Your task to perform on an android device: Empty the shopping cart on bestbuy. Add "corsair k70" to the cart on bestbuy Image 0: 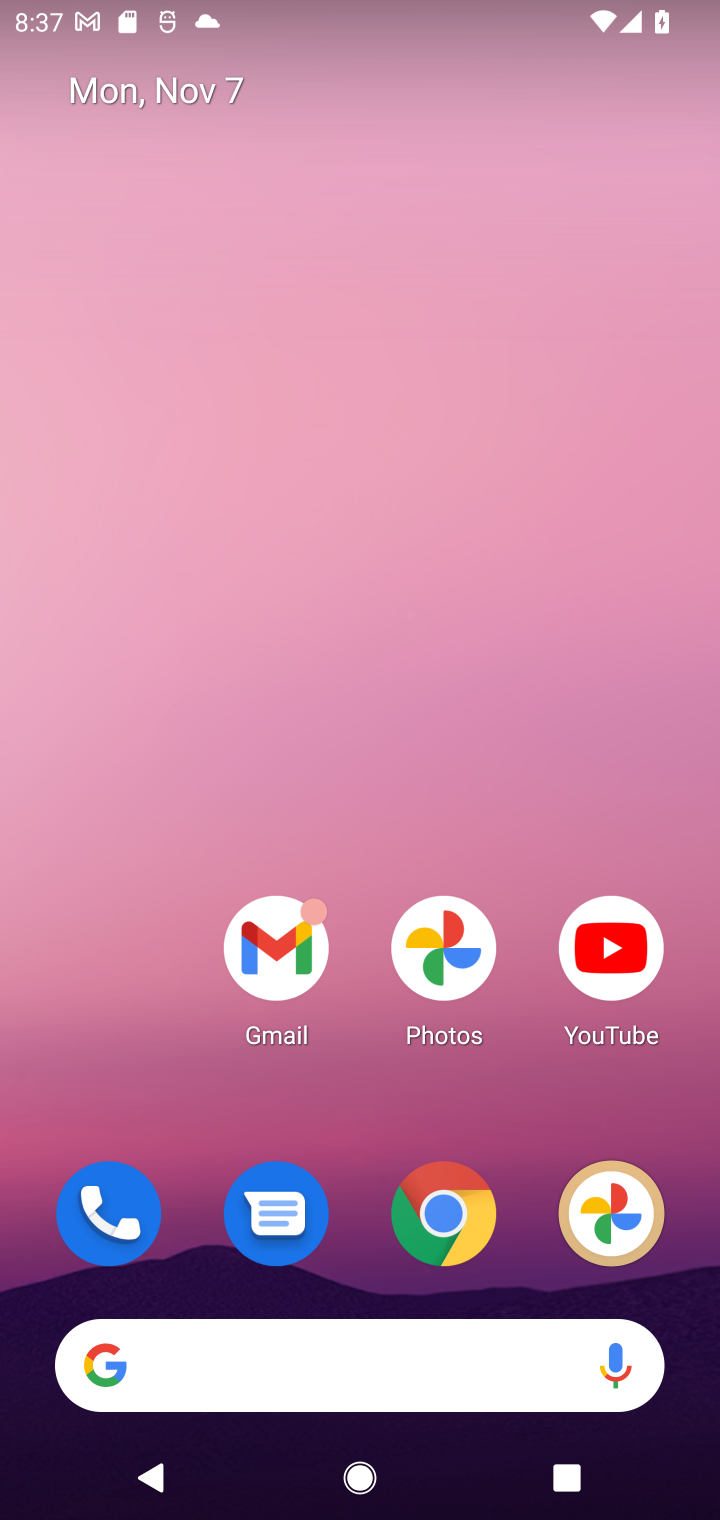
Step 0: click (455, 1223)
Your task to perform on an android device: Empty the shopping cart on bestbuy. Add "corsair k70" to the cart on bestbuy Image 1: 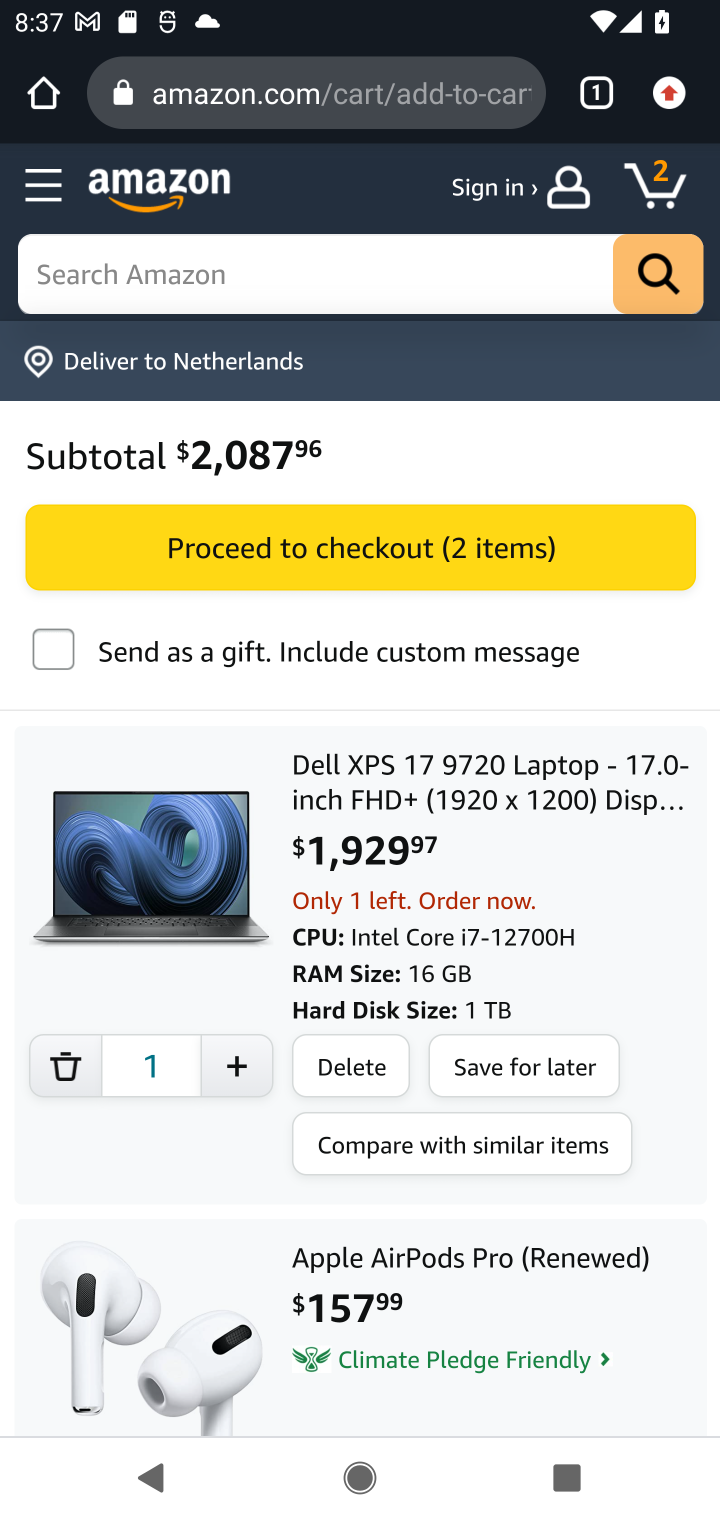
Step 1: click (338, 106)
Your task to perform on an android device: Empty the shopping cart on bestbuy. Add "corsair k70" to the cart on bestbuy Image 2: 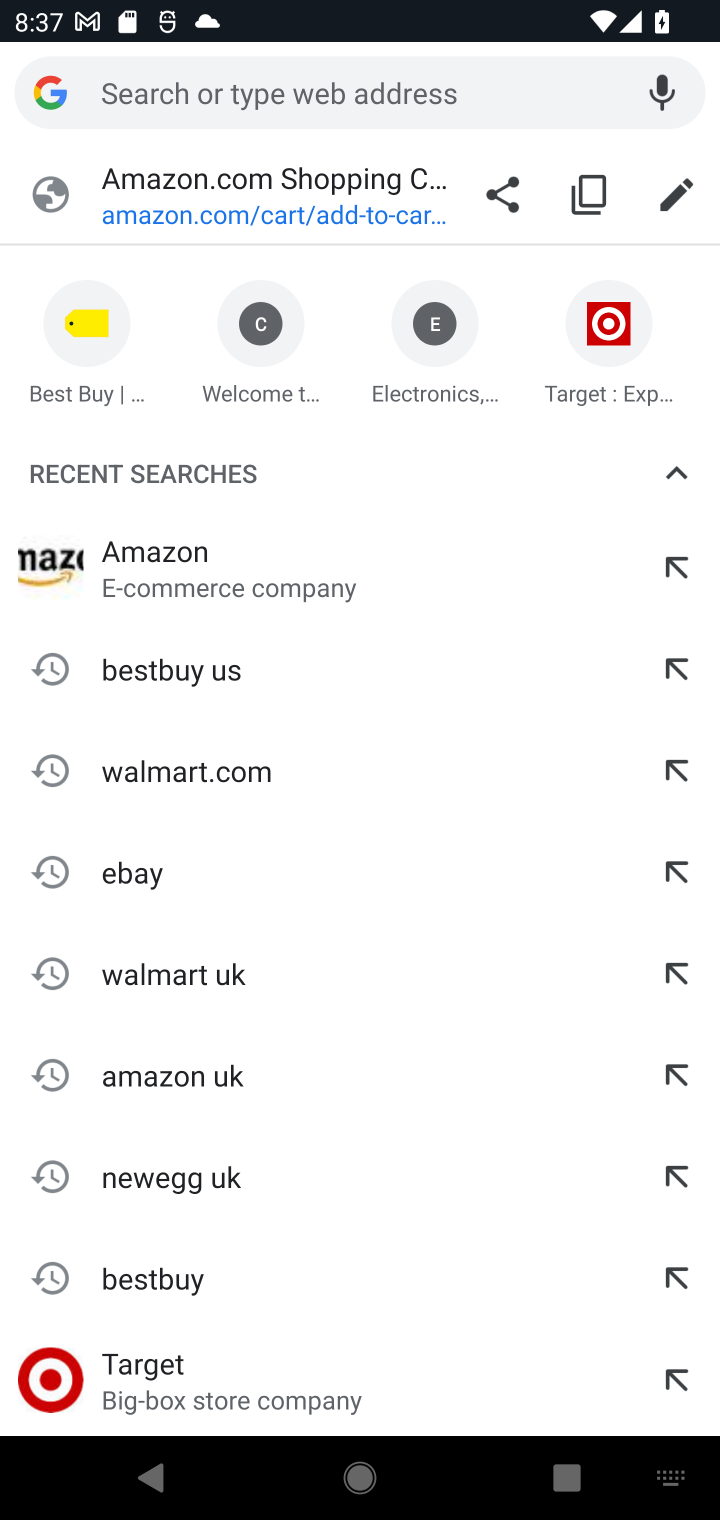
Step 2: type "bestbuy.com"
Your task to perform on an android device: Empty the shopping cart on bestbuy. Add "corsair k70" to the cart on bestbuy Image 3: 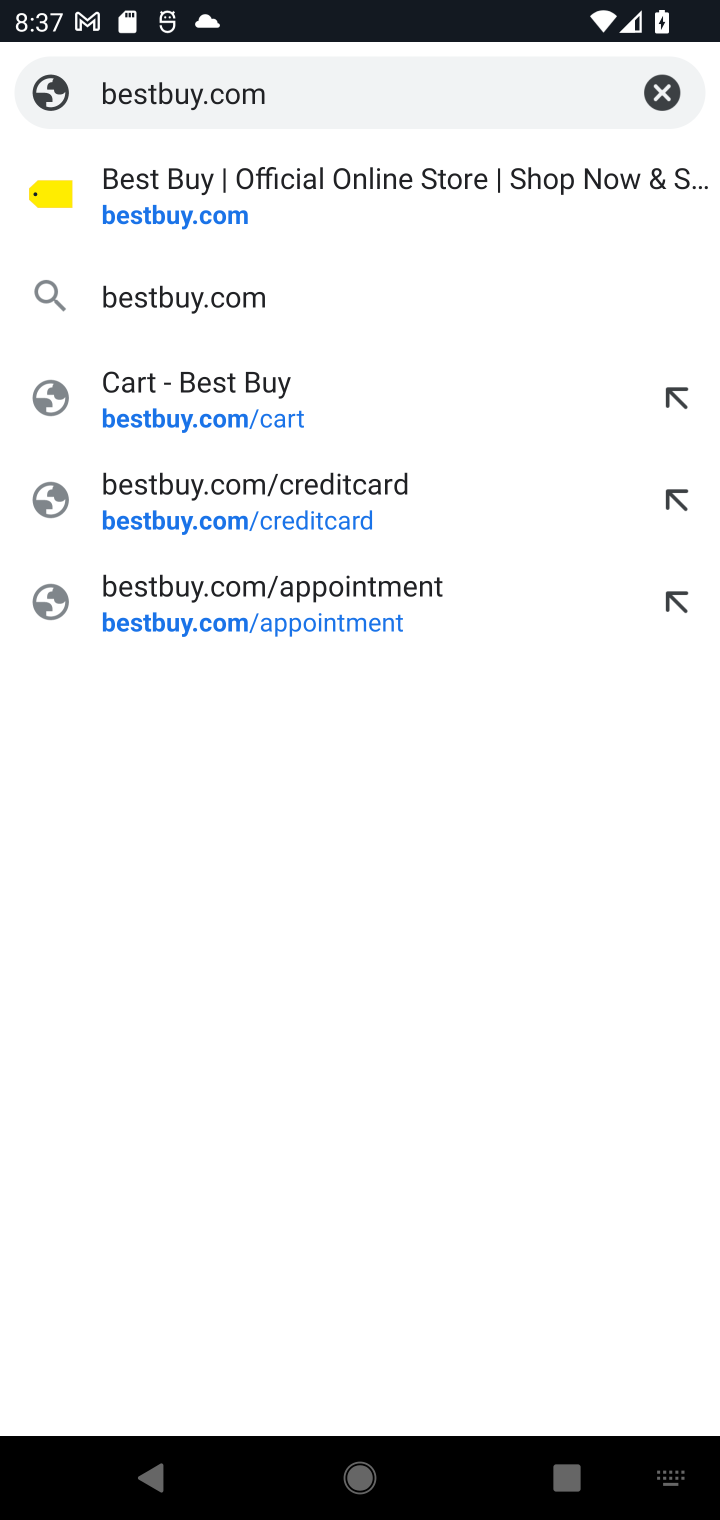
Step 3: click (138, 215)
Your task to perform on an android device: Empty the shopping cart on bestbuy. Add "corsair k70" to the cart on bestbuy Image 4: 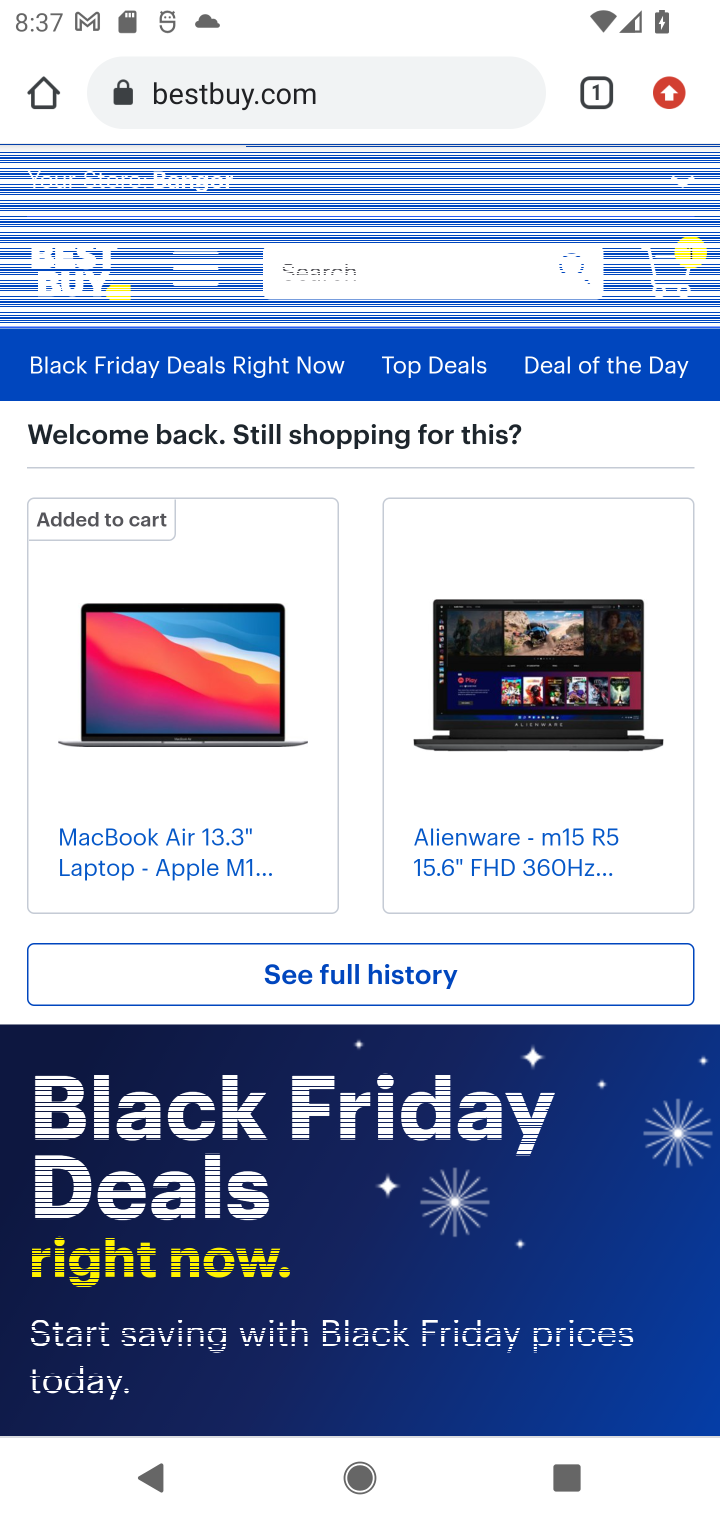
Step 4: click (670, 270)
Your task to perform on an android device: Empty the shopping cart on bestbuy. Add "corsair k70" to the cart on bestbuy Image 5: 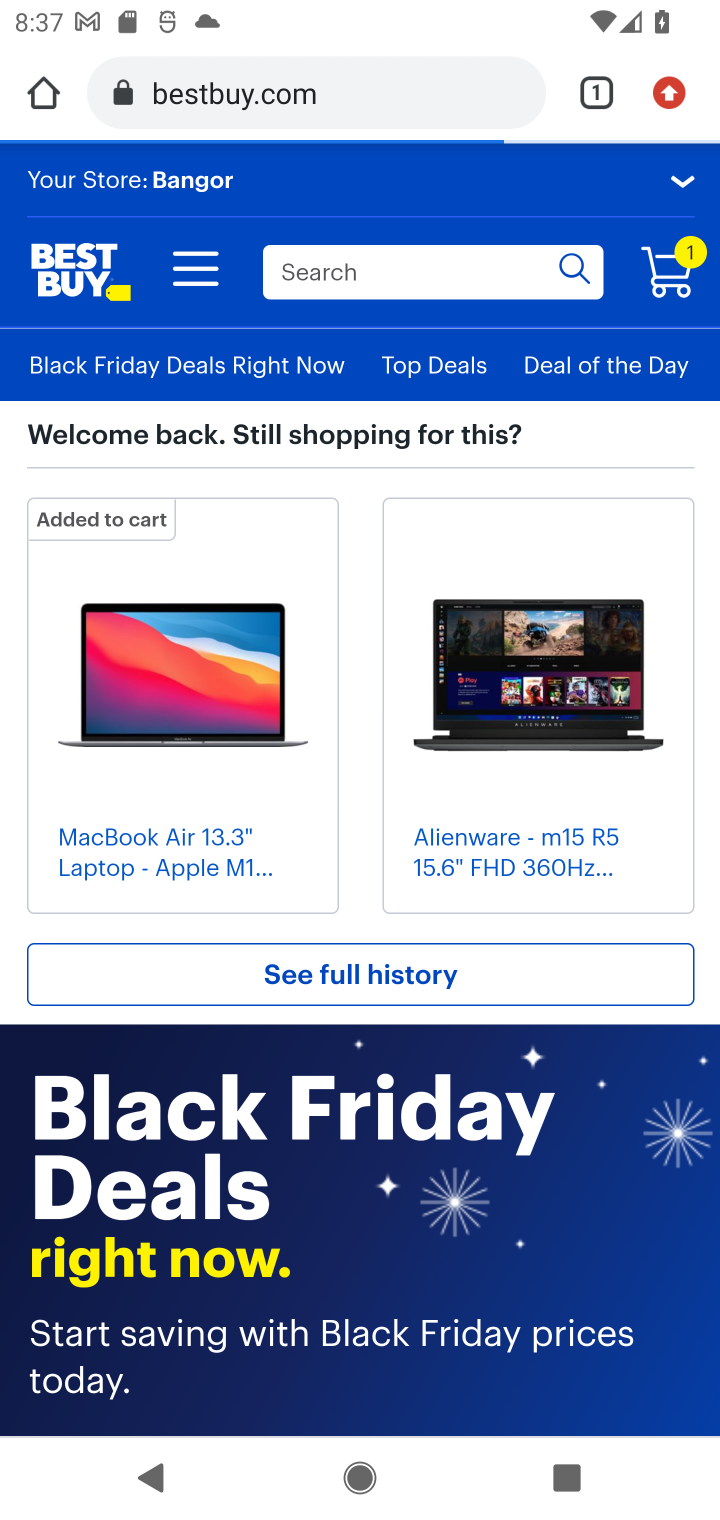
Step 5: click (672, 273)
Your task to perform on an android device: Empty the shopping cart on bestbuy. Add "corsair k70" to the cart on bestbuy Image 6: 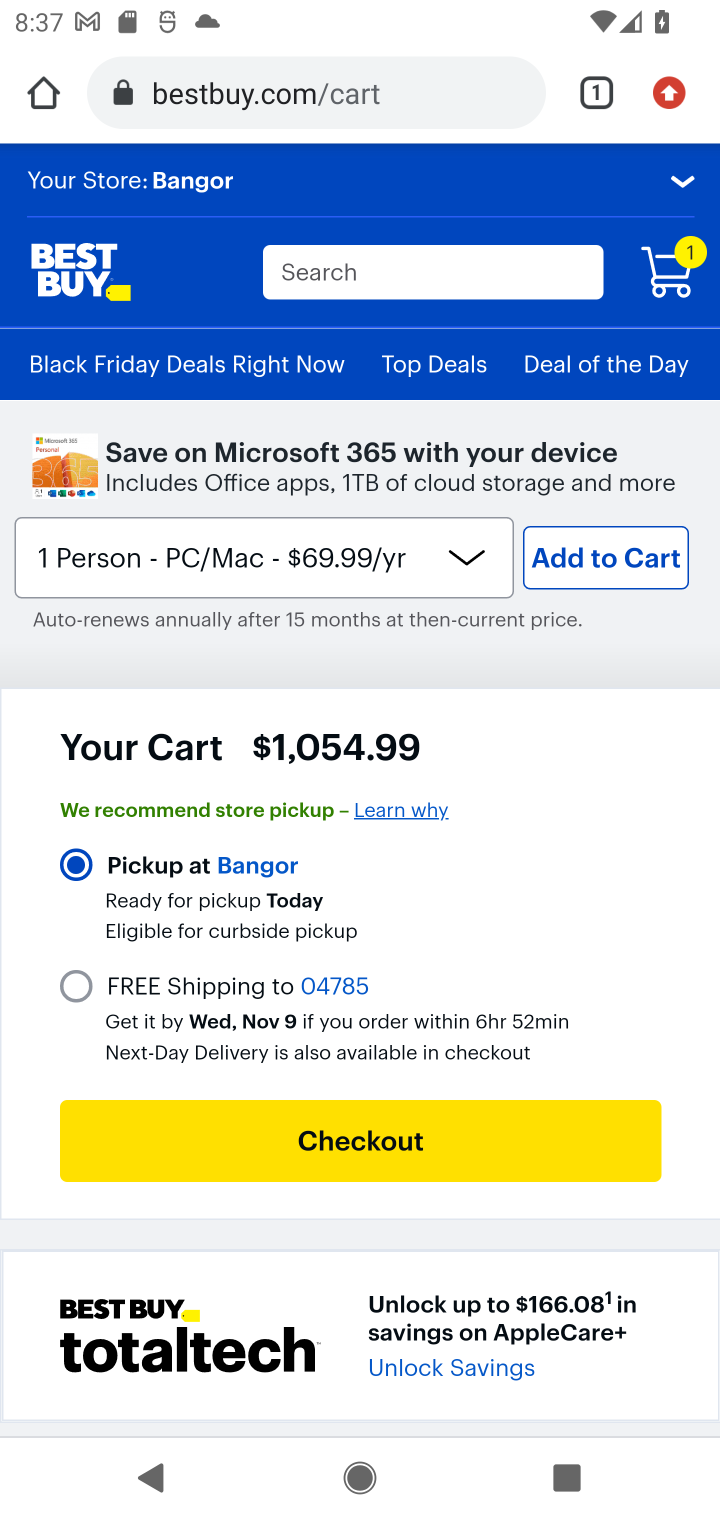
Step 6: drag from (465, 1048) to (468, 514)
Your task to perform on an android device: Empty the shopping cart on bestbuy. Add "corsair k70" to the cart on bestbuy Image 7: 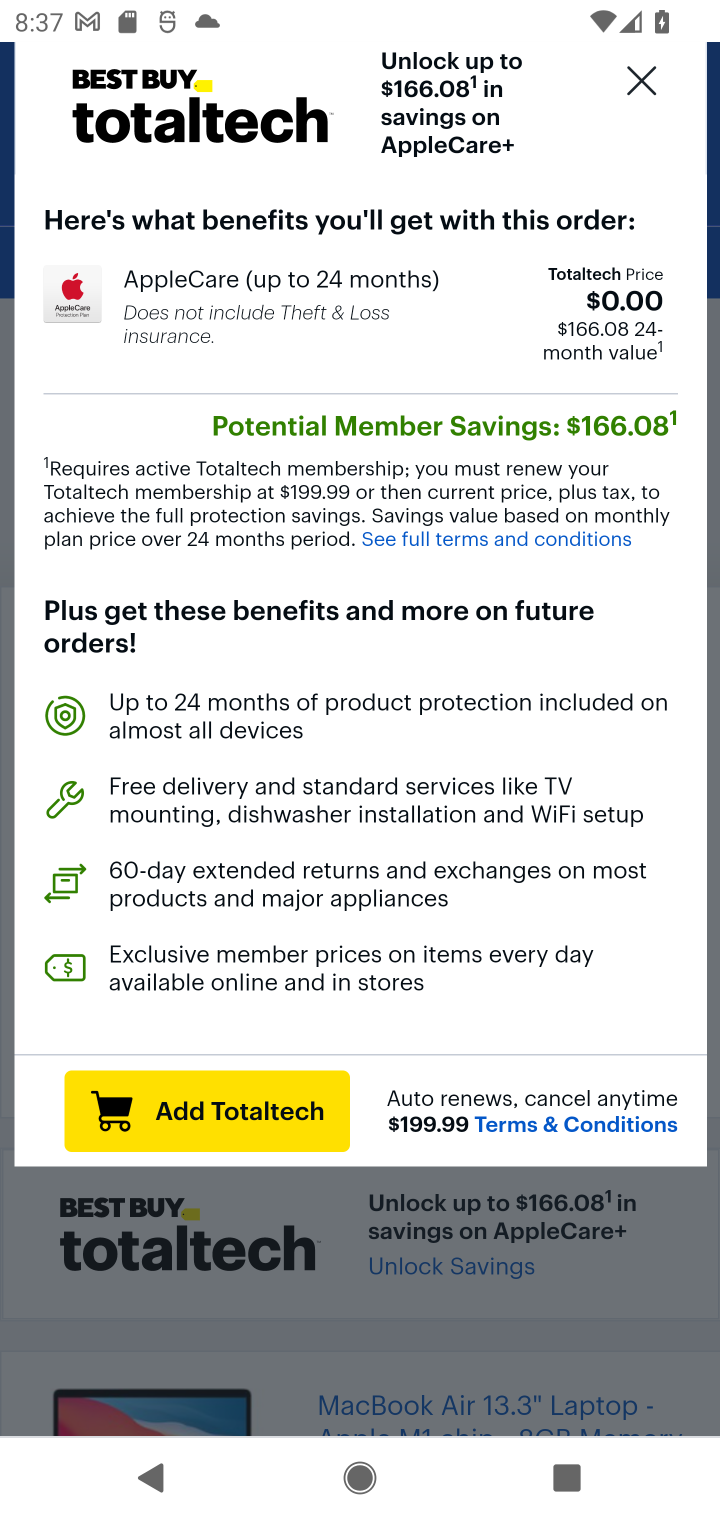
Step 7: click (644, 96)
Your task to perform on an android device: Empty the shopping cart on bestbuy. Add "corsair k70" to the cart on bestbuy Image 8: 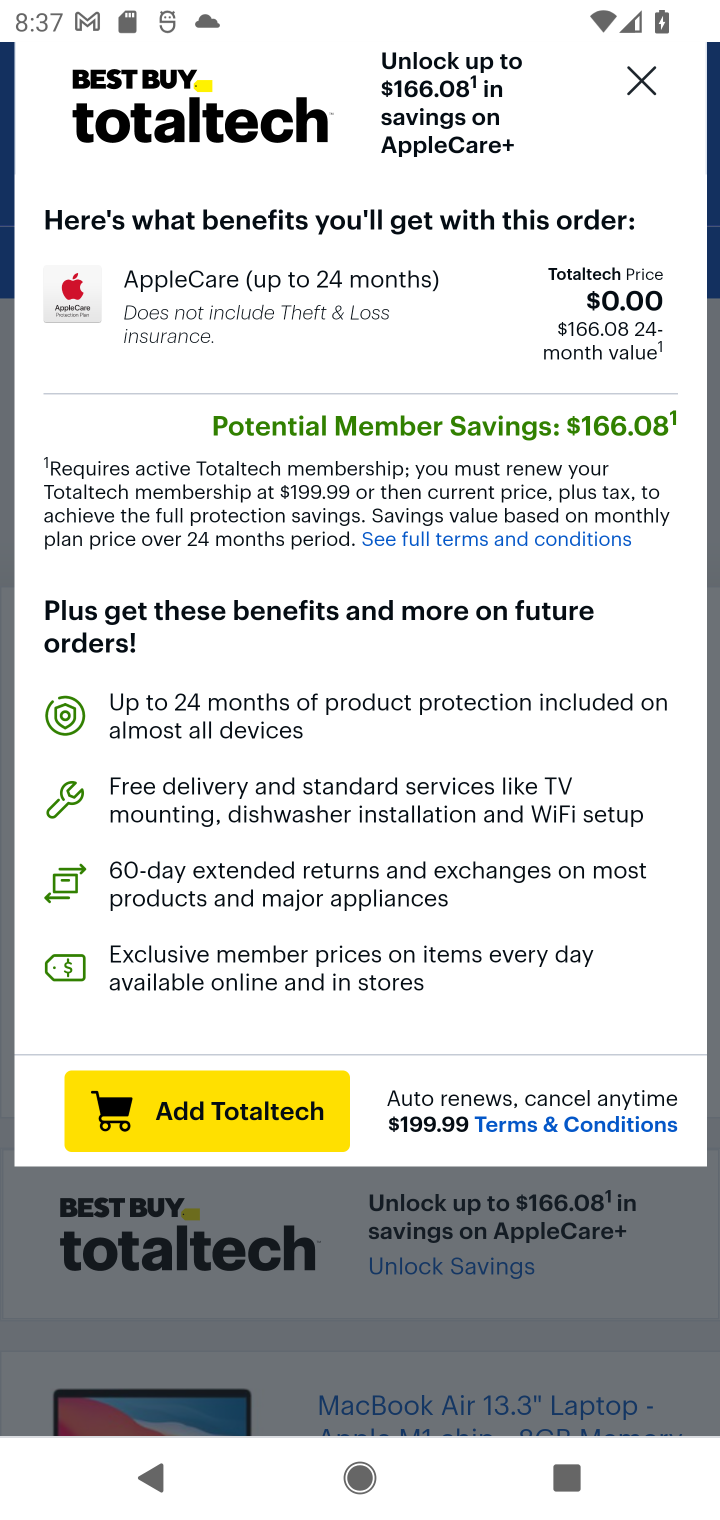
Step 8: click (637, 86)
Your task to perform on an android device: Empty the shopping cart on bestbuy. Add "corsair k70" to the cart on bestbuy Image 9: 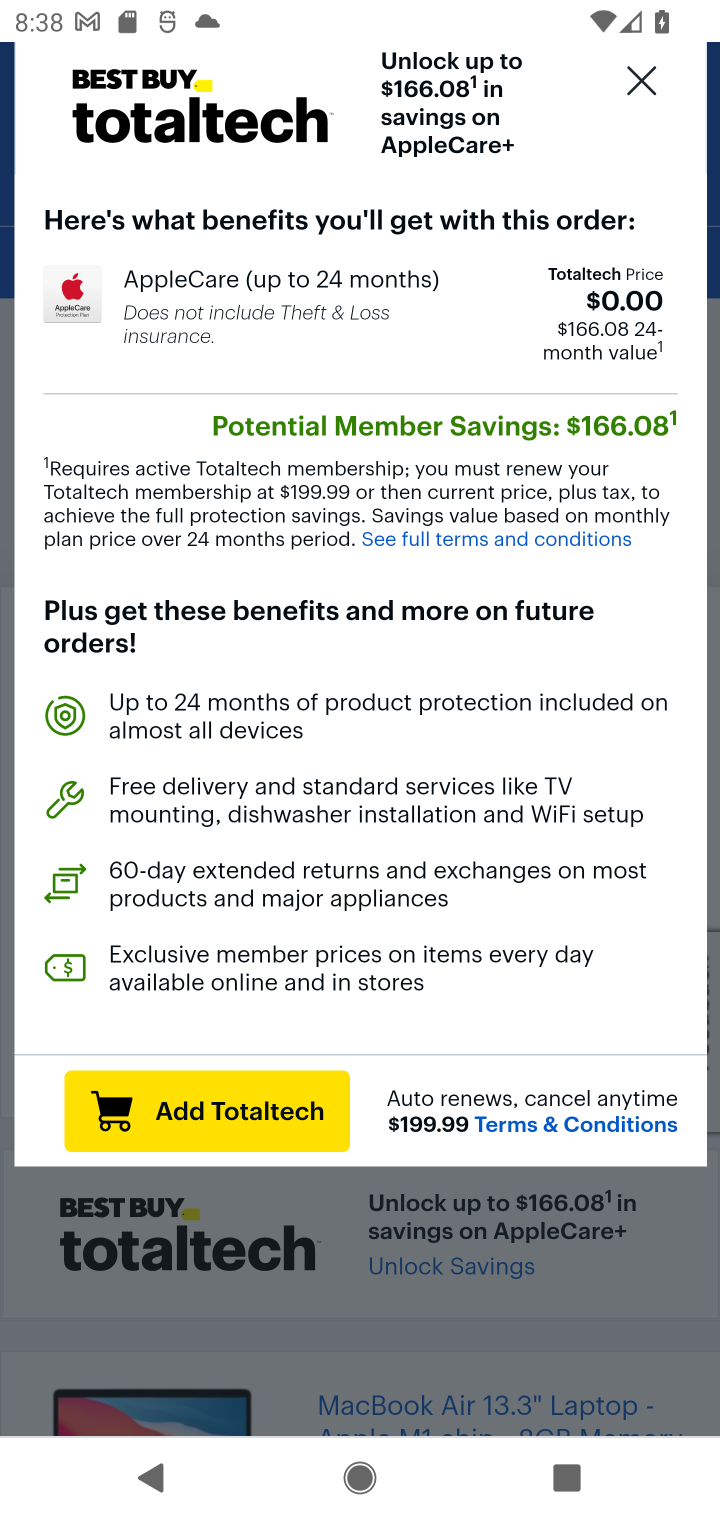
Step 9: drag from (581, 814) to (520, 1126)
Your task to perform on an android device: Empty the shopping cart on bestbuy. Add "corsair k70" to the cart on bestbuy Image 10: 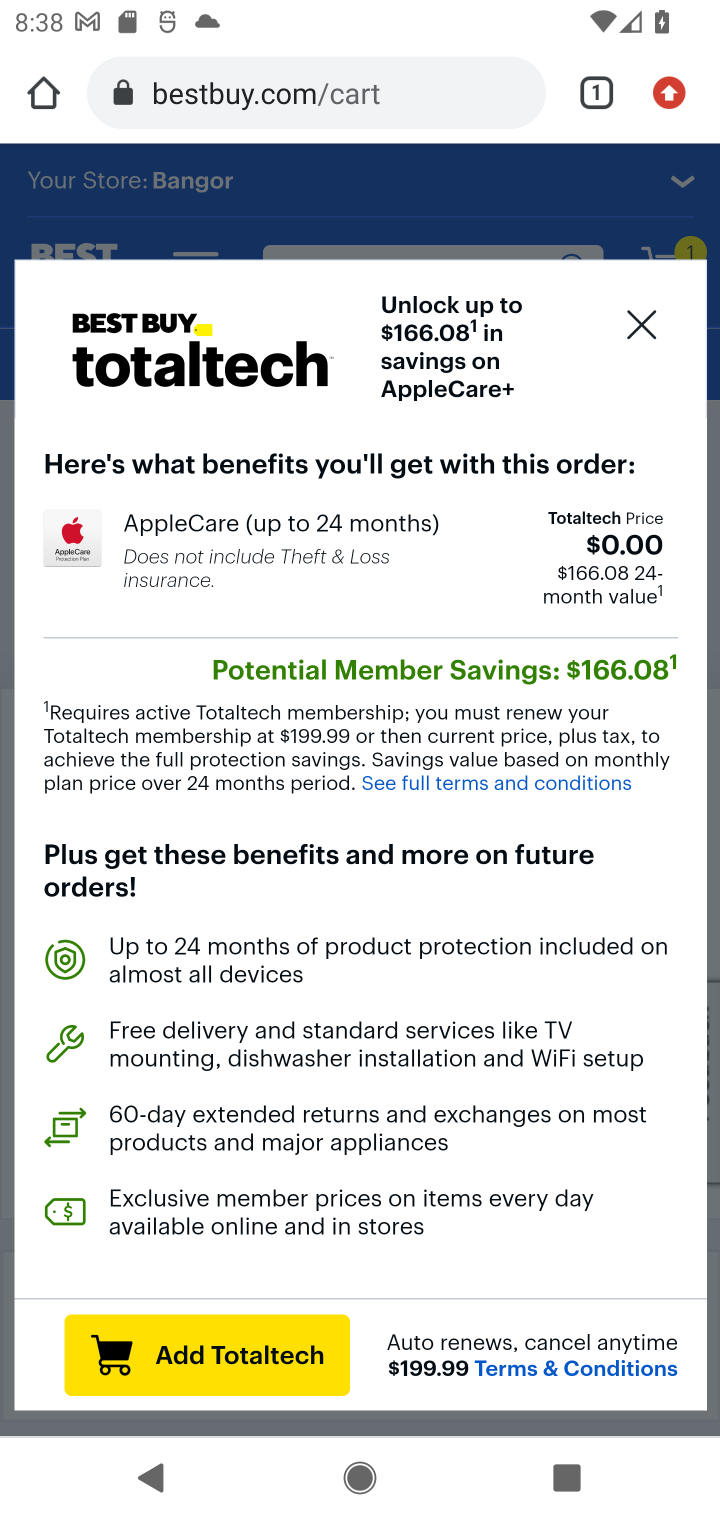
Step 10: click (633, 327)
Your task to perform on an android device: Empty the shopping cart on bestbuy. Add "corsair k70" to the cart on bestbuy Image 11: 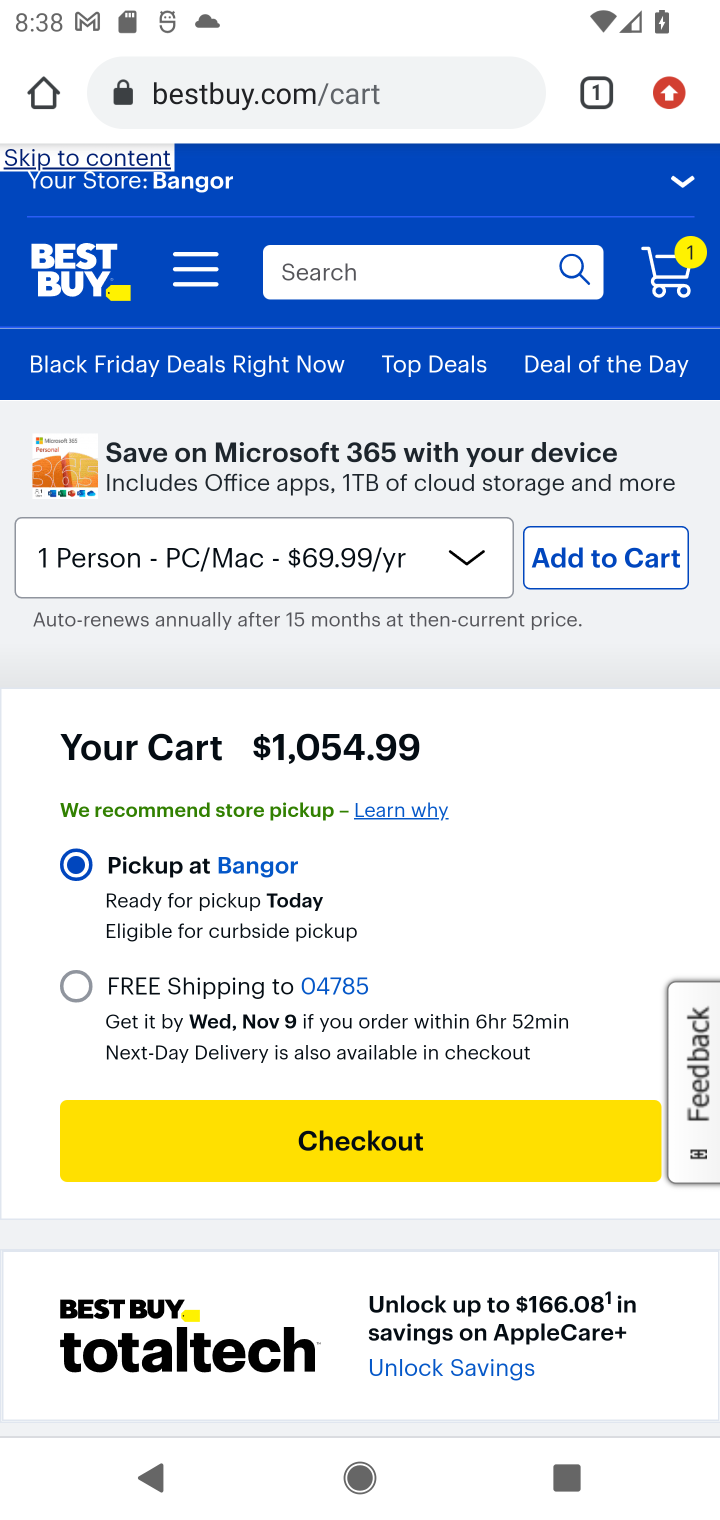
Step 11: drag from (371, 971) to (405, 392)
Your task to perform on an android device: Empty the shopping cart on bestbuy. Add "corsair k70" to the cart on bestbuy Image 12: 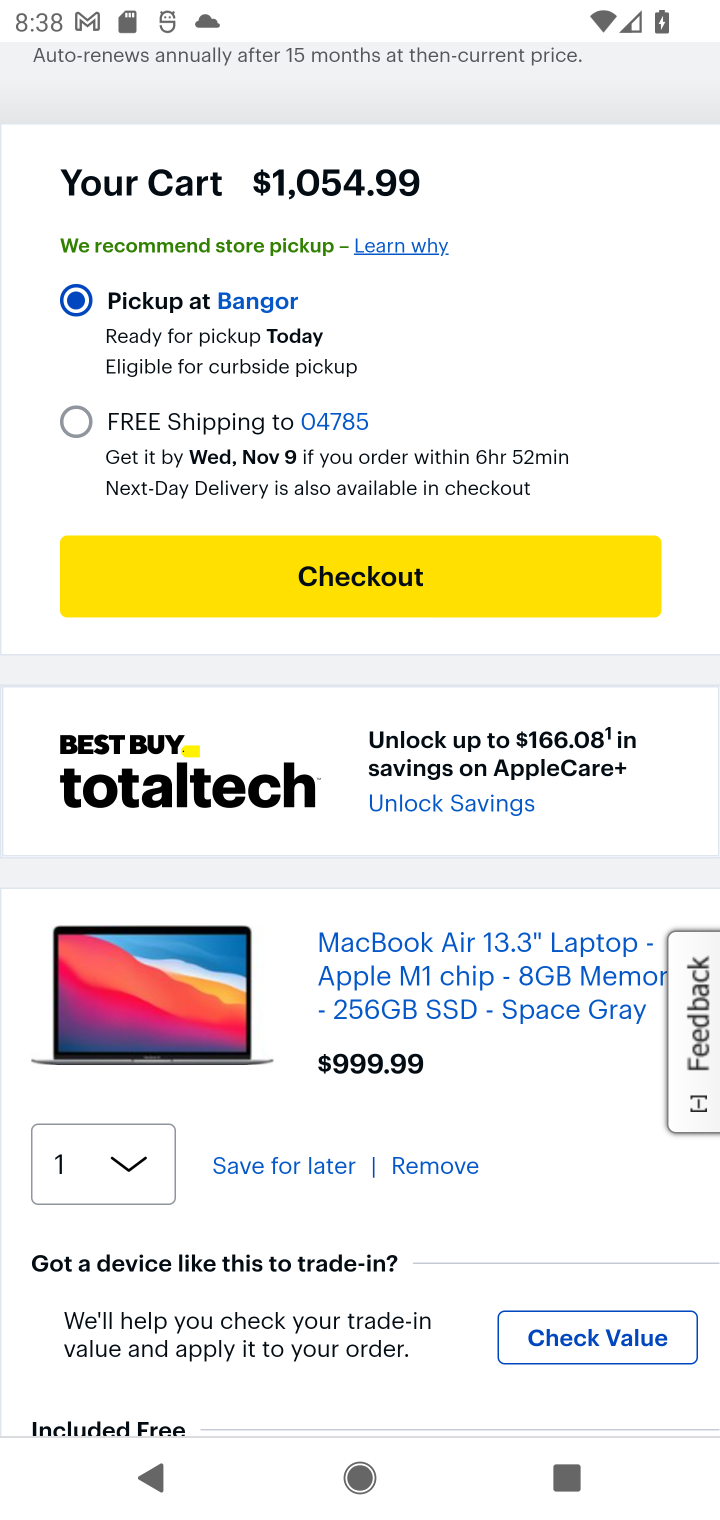
Step 12: click (447, 1165)
Your task to perform on an android device: Empty the shopping cart on bestbuy. Add "corsair k70" to the cart on bestbuy Image 13: 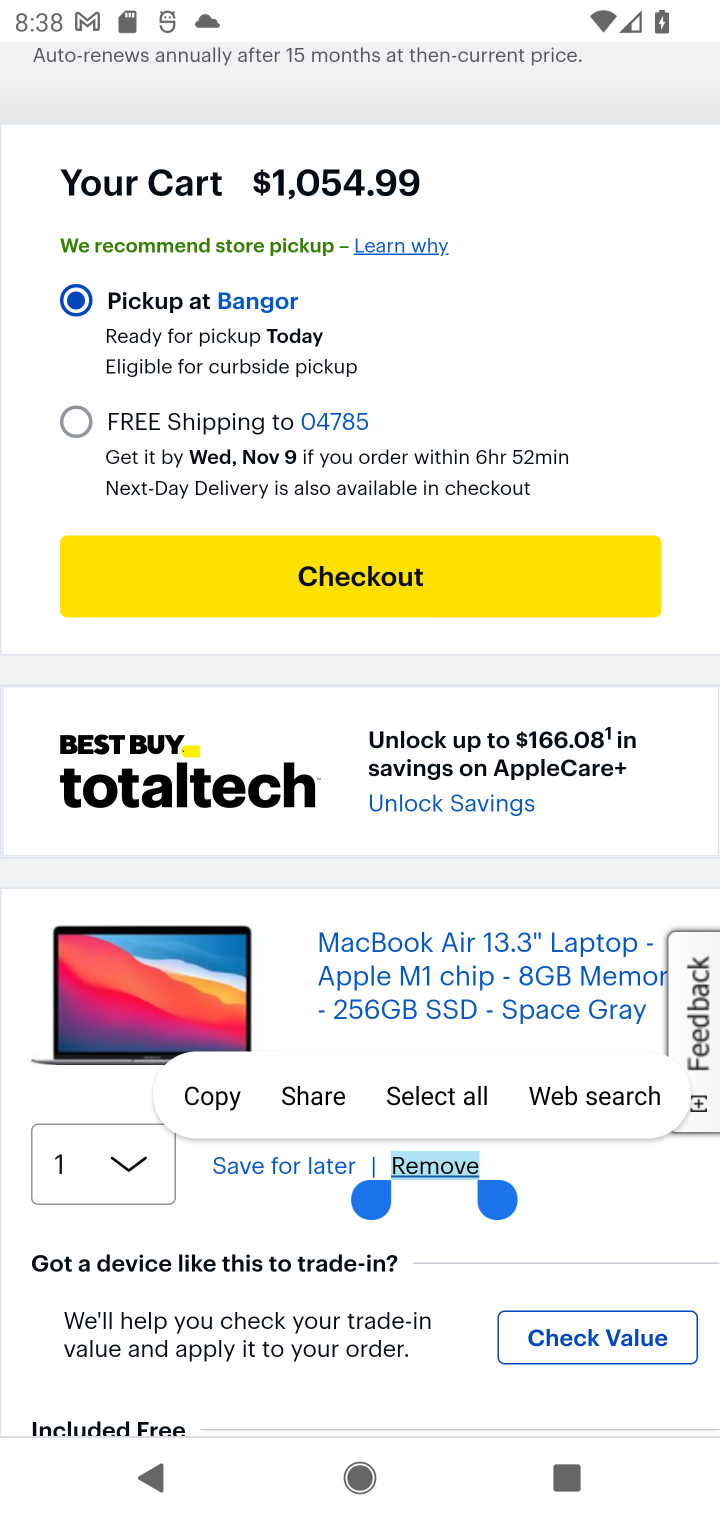
Step 13: click (447, 1167)
Your task to perform on an android device: Empty the shopping cart on bestbuy. Add "corsair k70" to the cart on bestbuy Image 14: 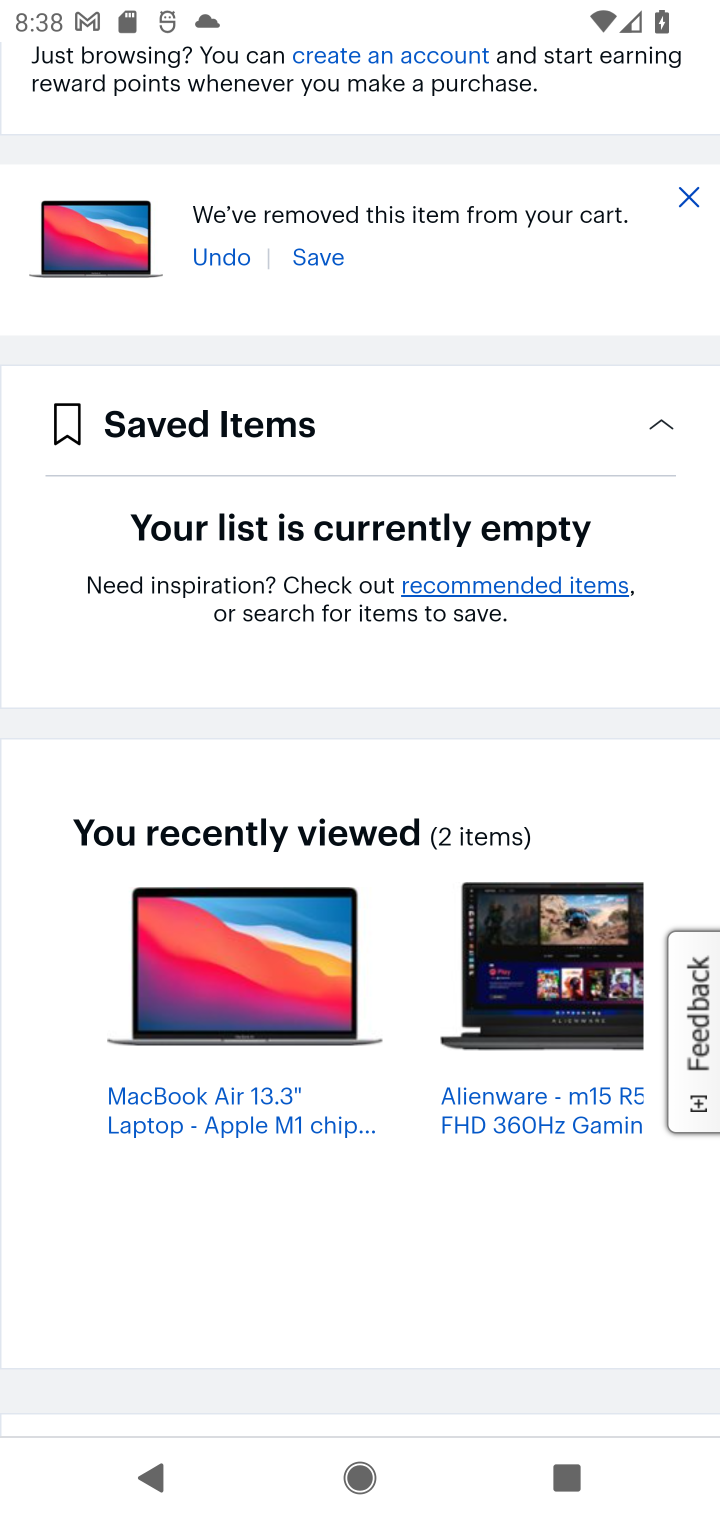
Step 14: drag from (391, 438) to (347, 1200)
Your task to perform on an android device: Empty the shopping cart on bestbuy. Add "corsair k70" to the cart on bestbuy Image 15: 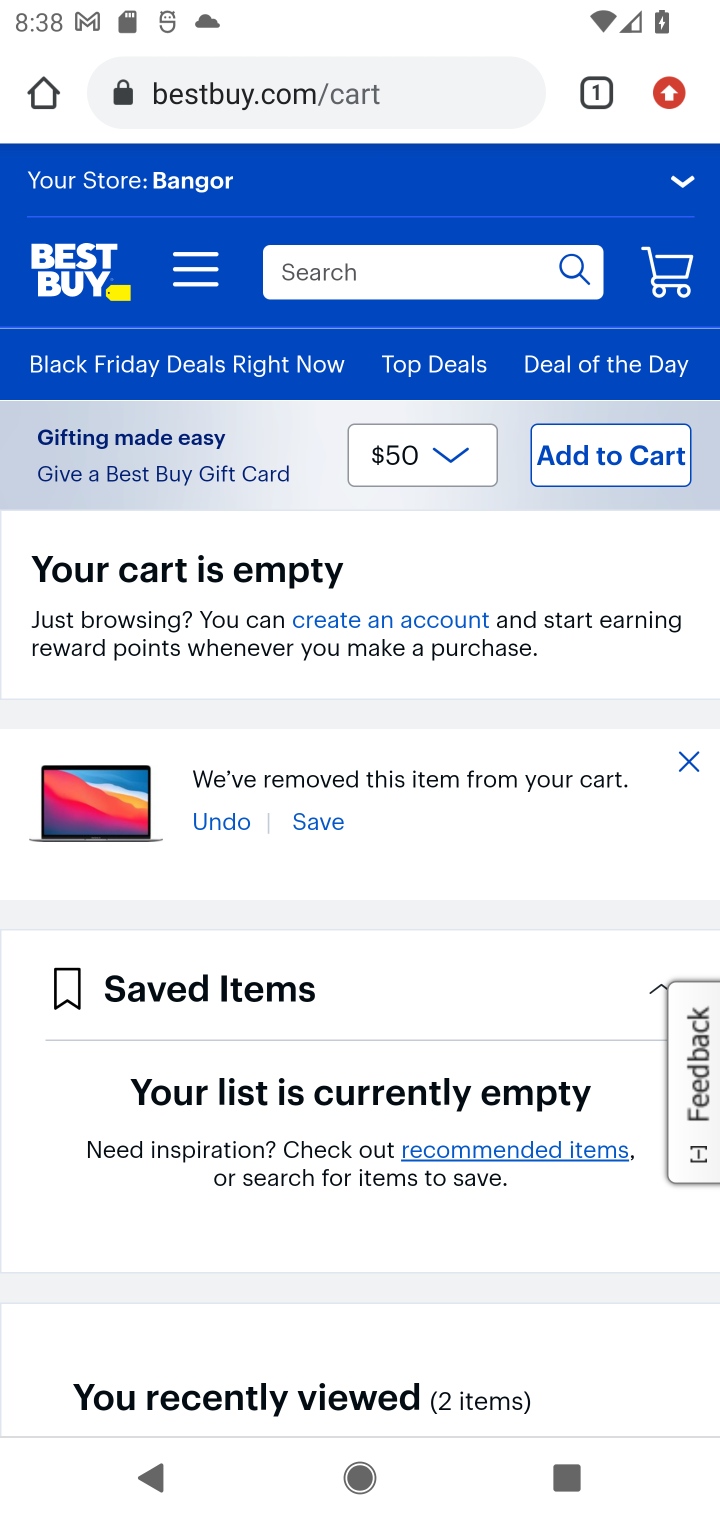
Step 15: click (386, 276)
Your task to perform on an android device: Empty the shopping cart on bestbuy. Add "corsair k70" to the cart on bestbuy Image 16: 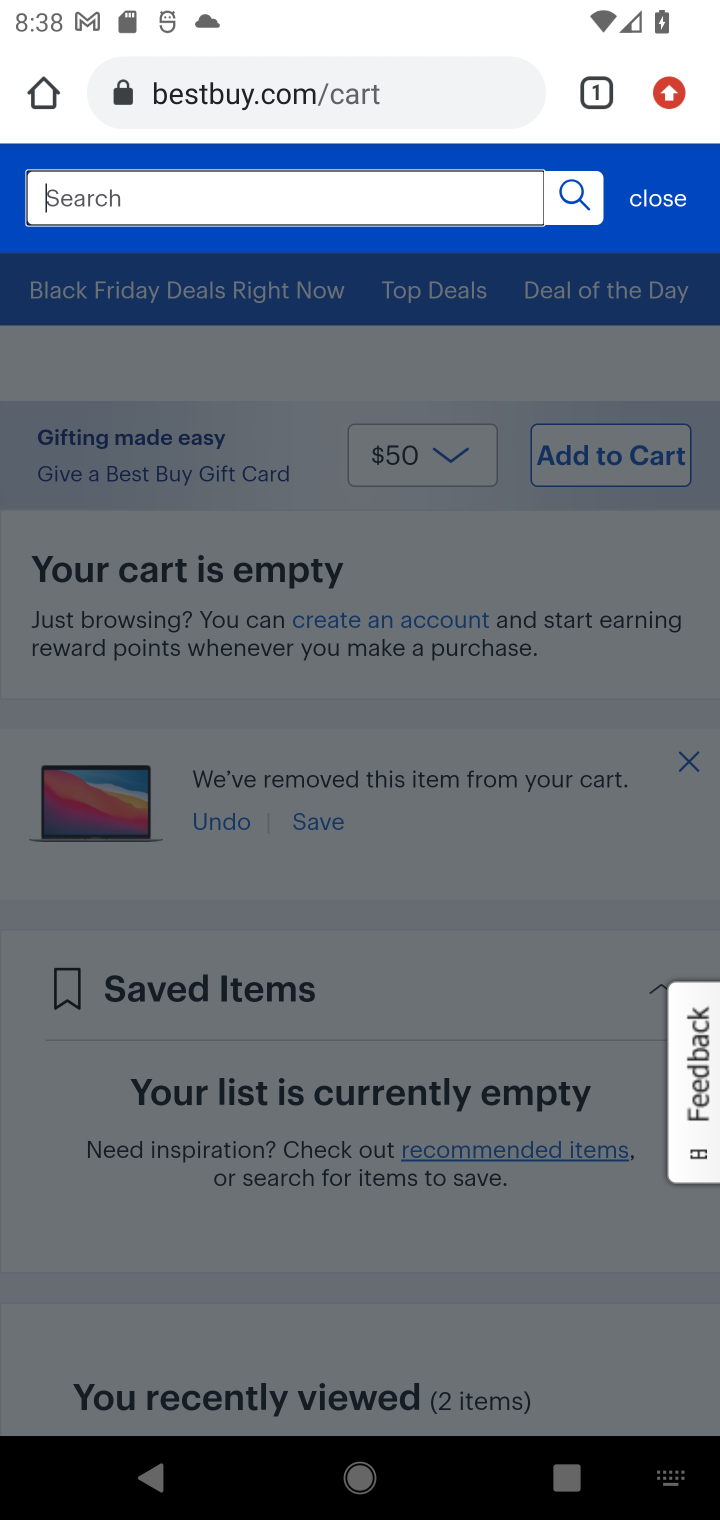
Step 16: type "corsair k70"
Your task to perform on an android device: Empty the shopping cart on bestbuy. Add "corsair k70" to the cart on bestbuy Image 17: 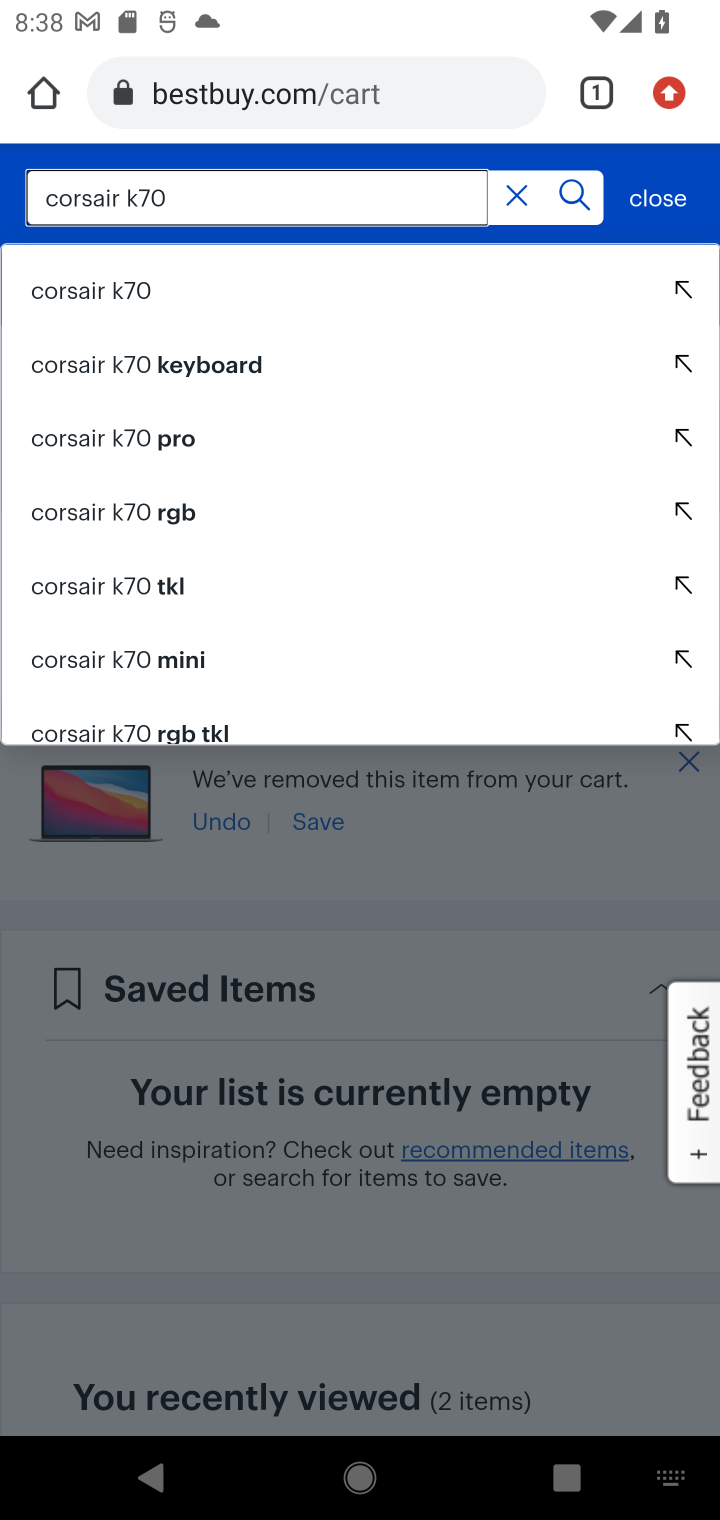
Step 17: click (103, 287)
Your task to perform on an android device: Empty the shopping cart on bestbuy. Add "corsair k70" to the cart on bestbuy Image 18: 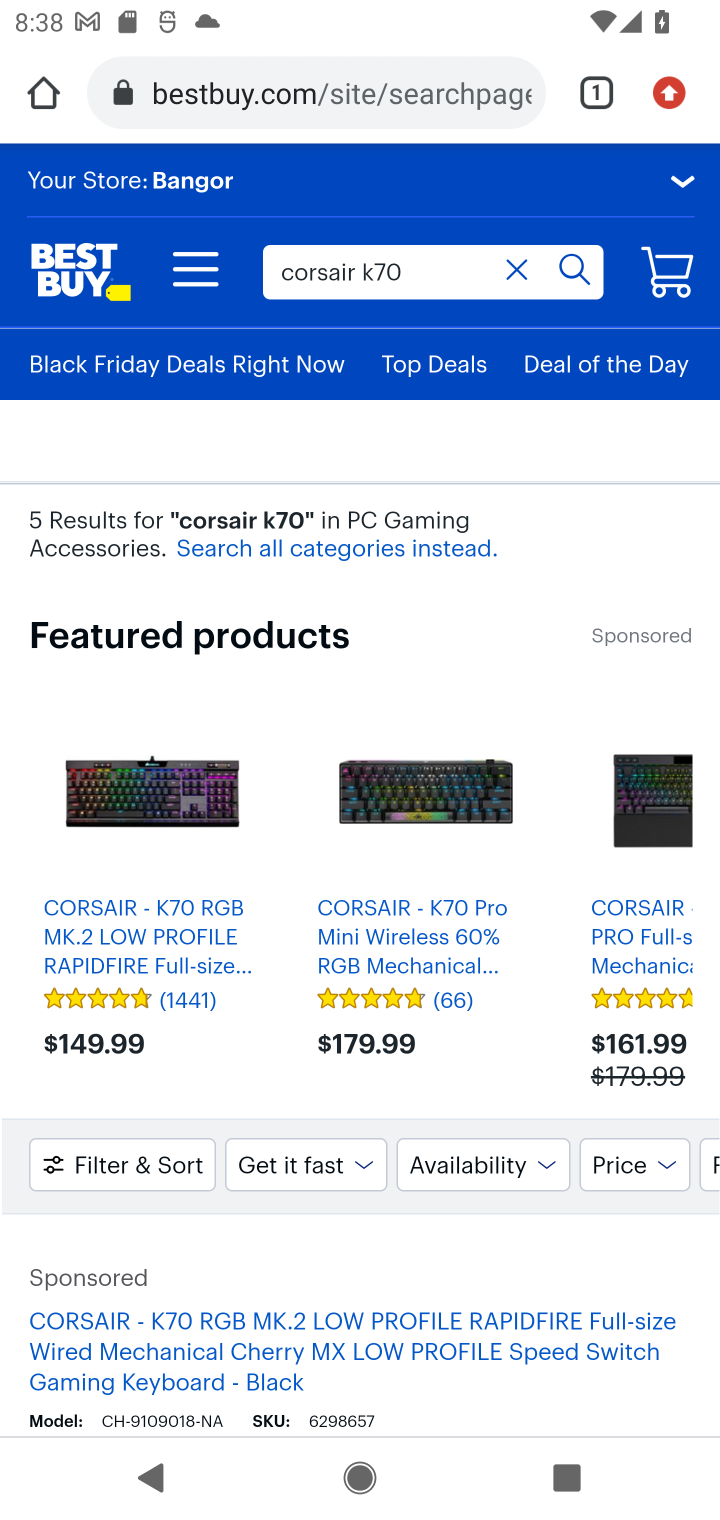
Step 18: drag from (288, 1085) to (301, 636)
Your task to perform on an android device: Empty the shopping cart on bestbuy. Add "corsair k70" to the cart on bestbuy Image 19: 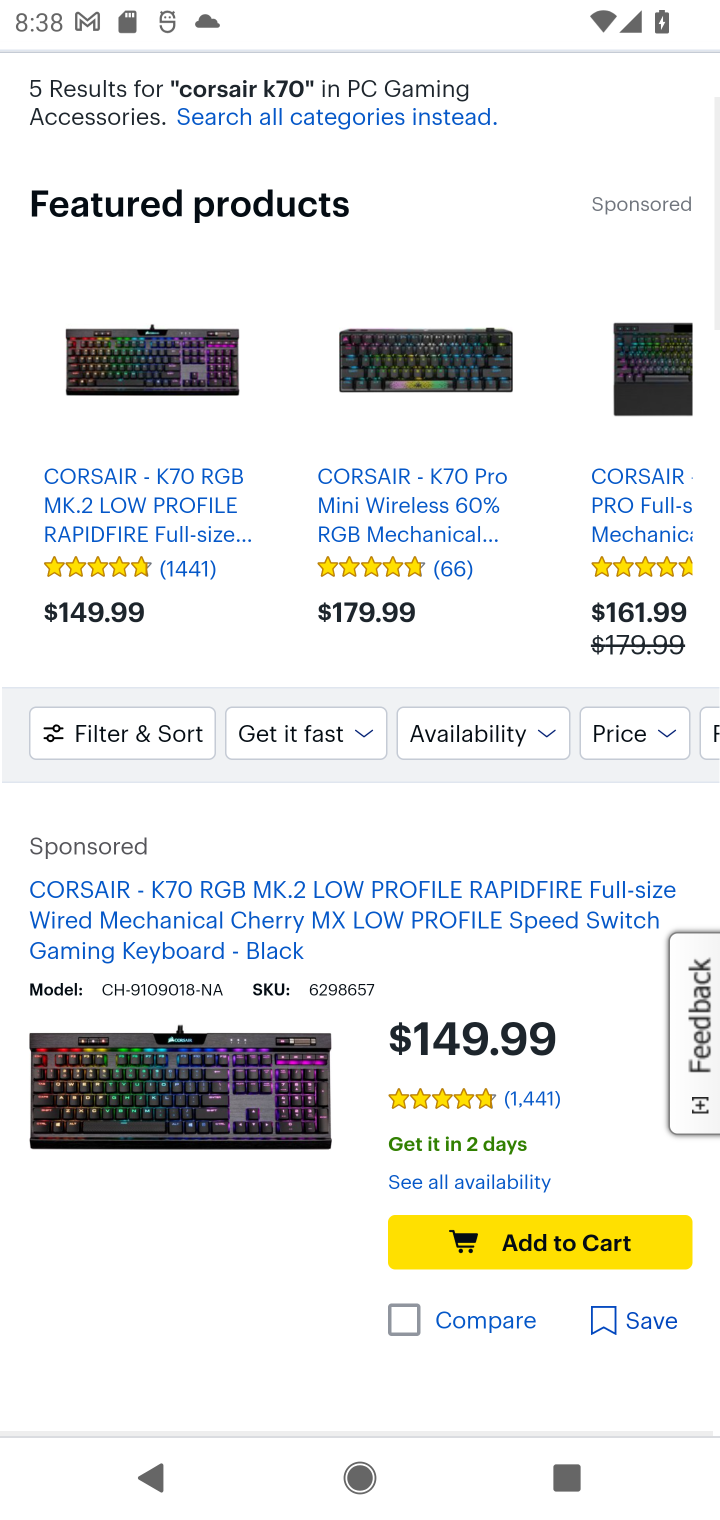
Step 19: drag from (199, 1119) to (223, 658)
Your task to perform on an android device: Empty the shopping cart on bestbuy. Add "corsair k70" to the cart on bestbuy Image 20: 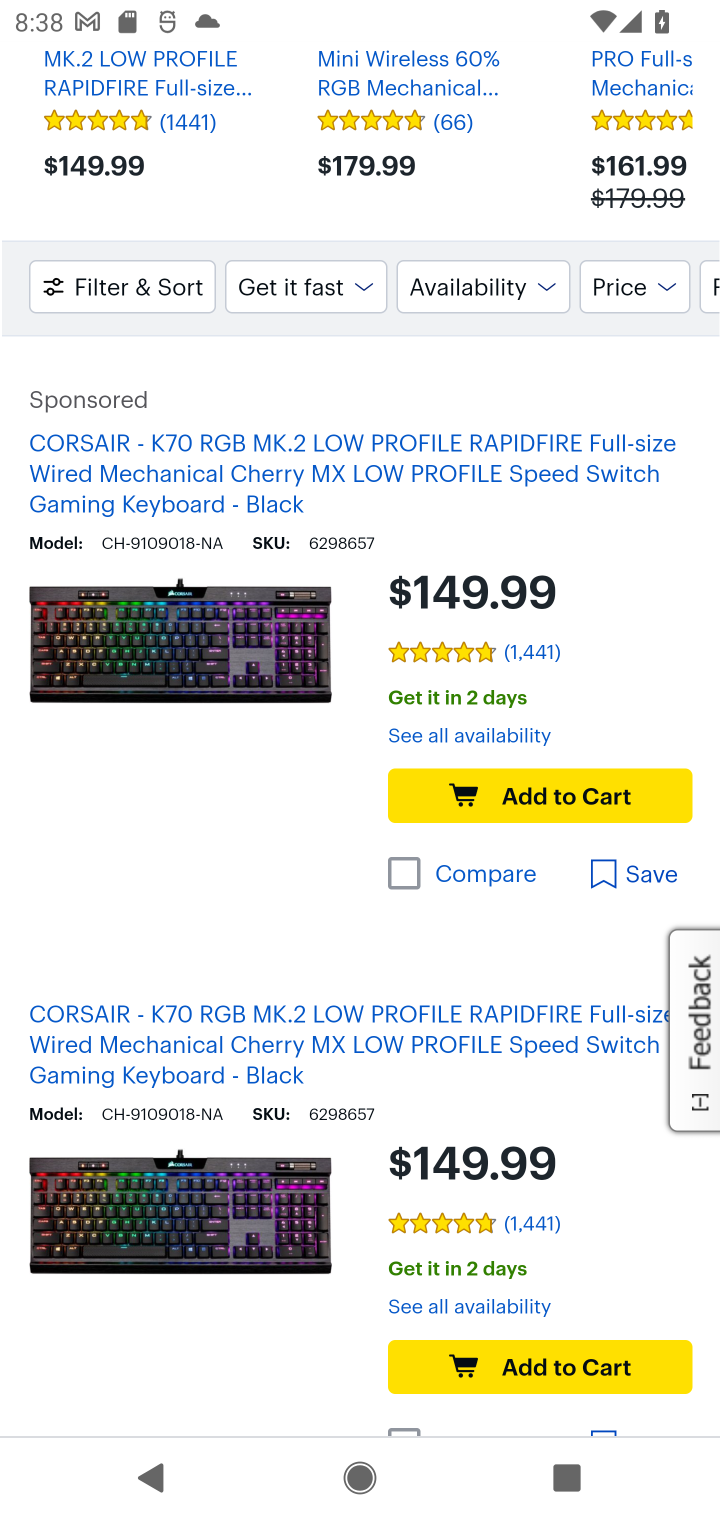
Step 20: click (530, 789)
Your task to perform on an android device: Empty the shopping cart on bestbuy. Add "corsair k70" to the cart on bestbuy Image 21: 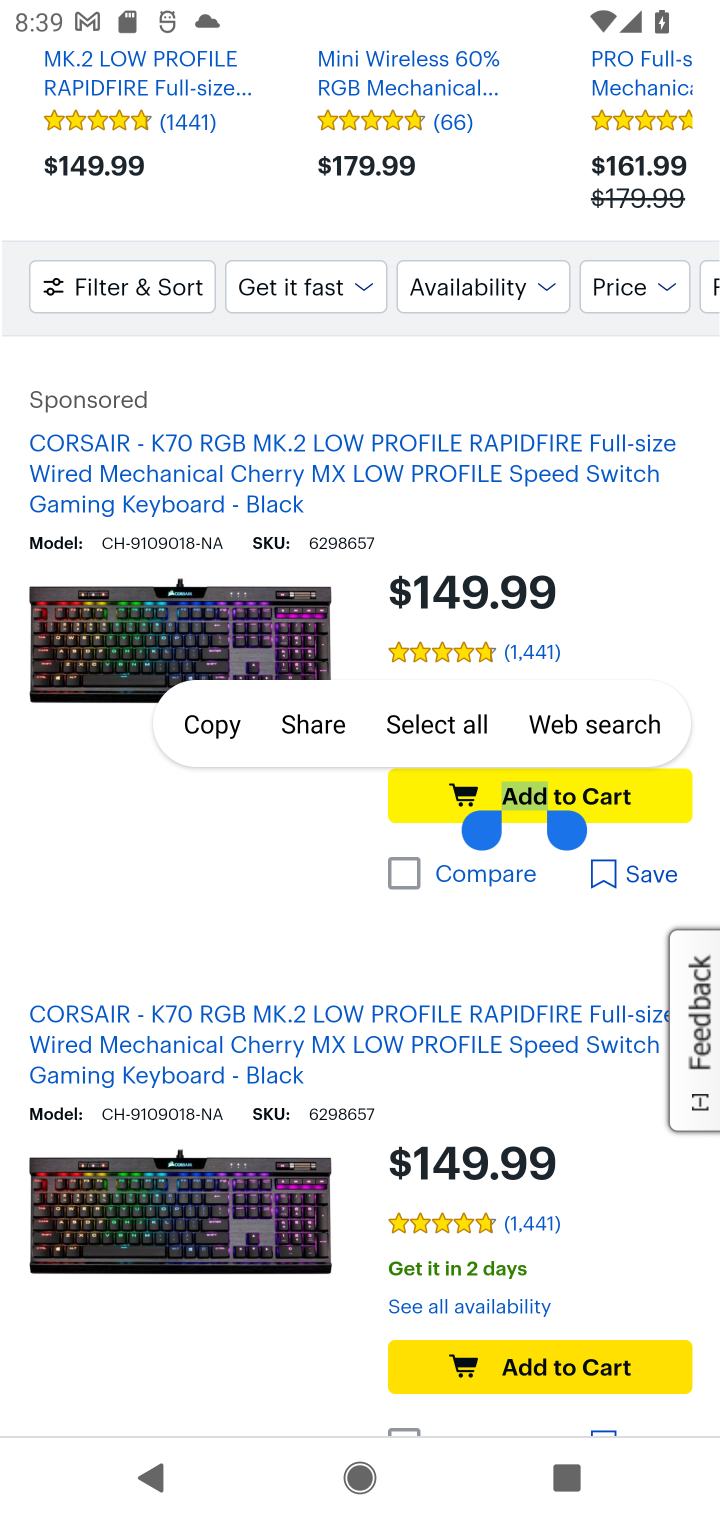
Step 21: click (558, 800)
Your task to perform on an android device: Empty the shopping cart on bestbuy. Add "corsair k70" to the cart on bestbuy Image 22: 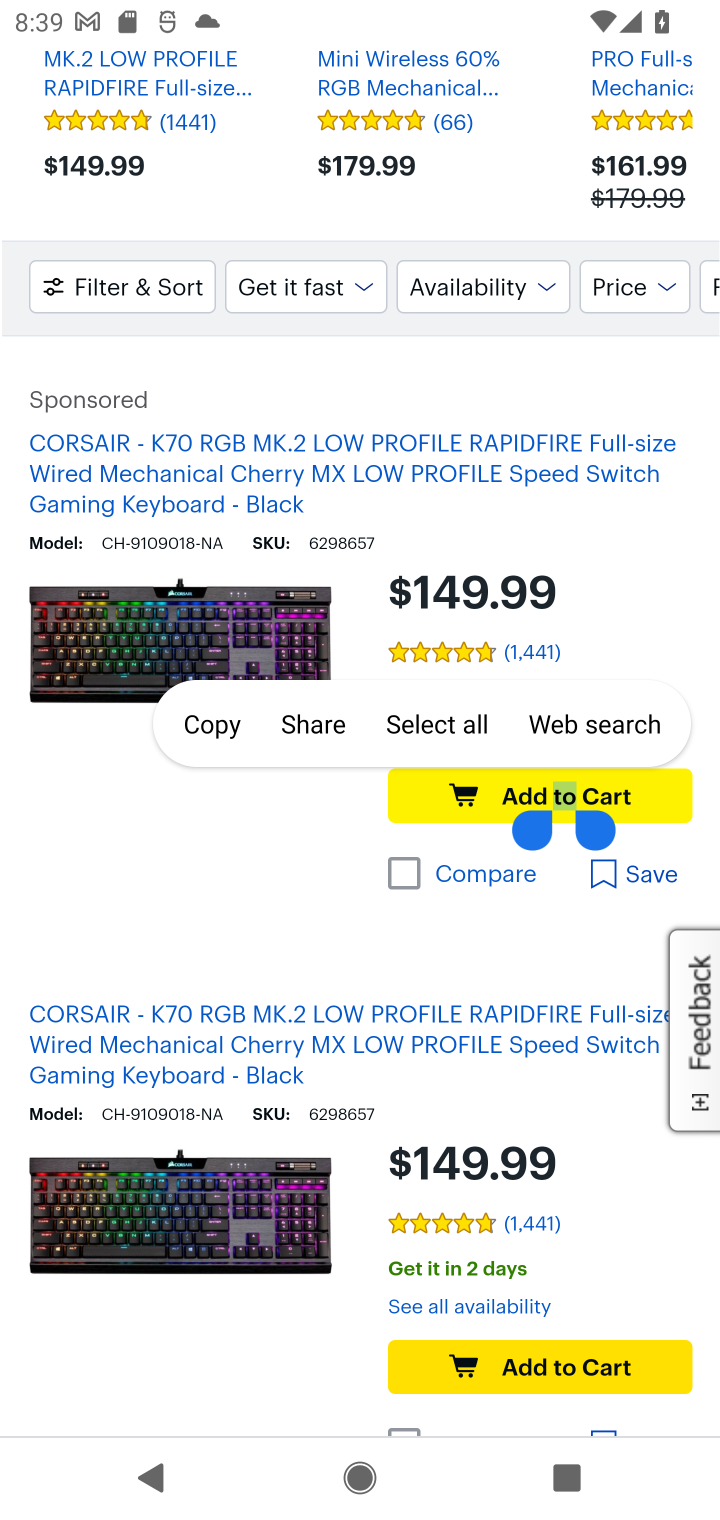
Step 22: click (601, 795)
Your task to perform on an android device: Empty the shopping cart on bestbuy. Add "corsair k70" to the cart on bestbuy Image 23: 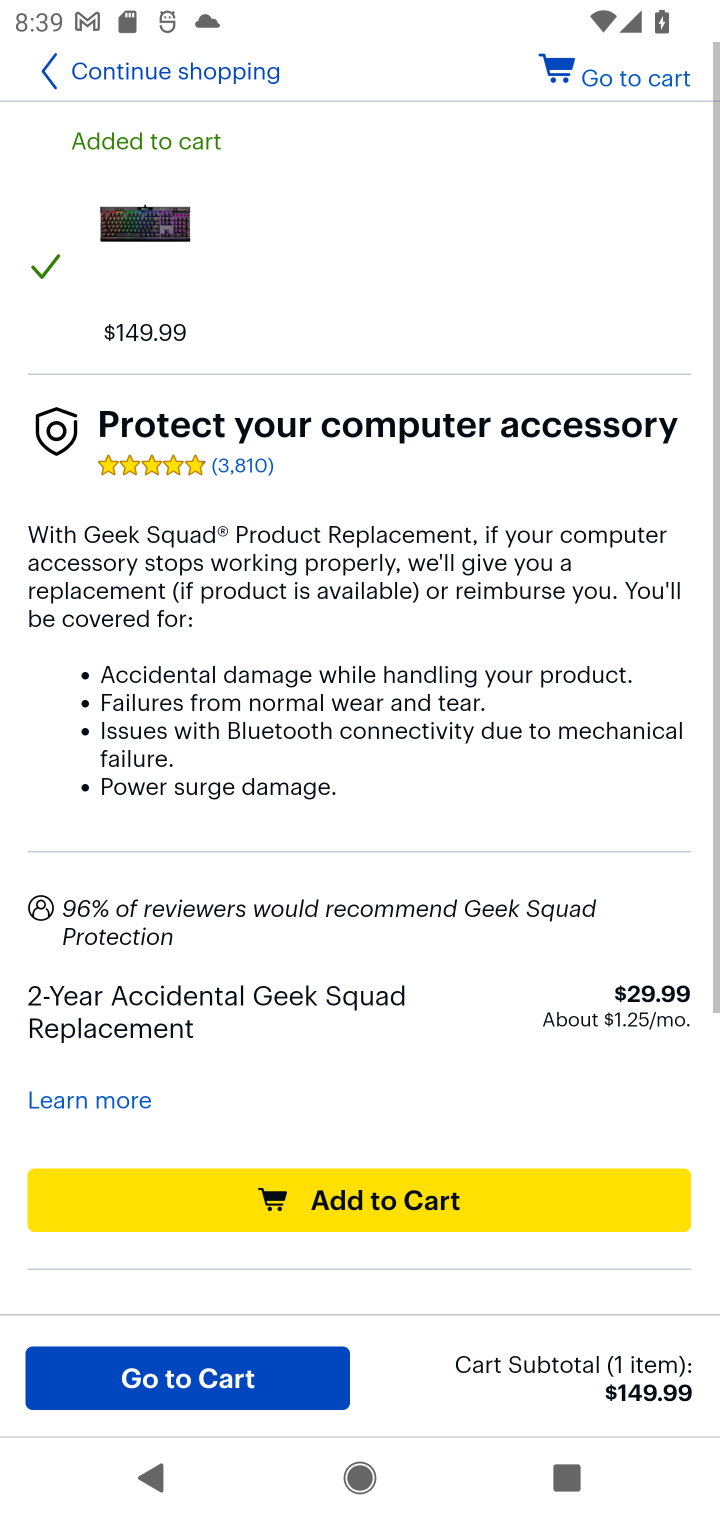
Step 23: task complete